Your task to perform on an android device: What's the weather going to be tomorrow? Image 0: 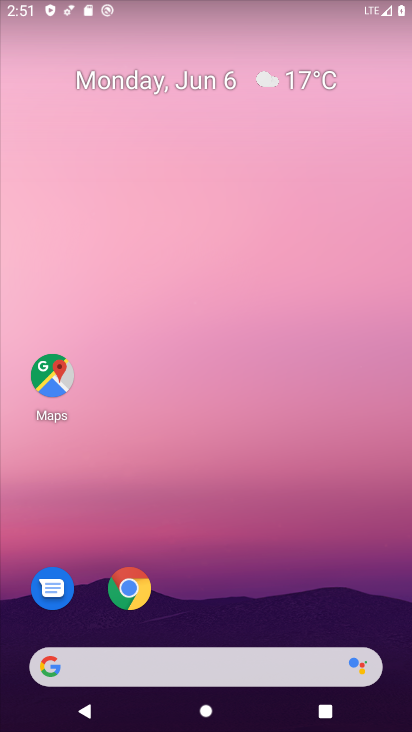
Step 0: click (294, 93)
Your task to perform on an android device: What's the weather going to be tomorrow? Image 1: 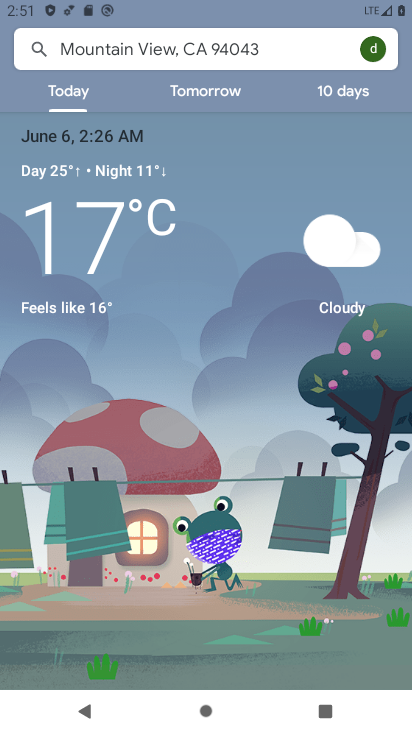
Step 1: click (196, 92)
Your task to perform on an android device: What's the weather going to be tomorrow? Image 2: 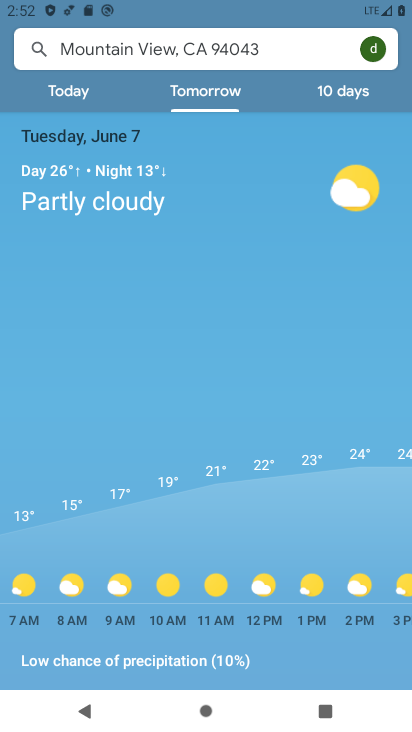
Step 2: task complete